Your task to perform on an android device: toggle priority inbox in the gmail app Image 0: 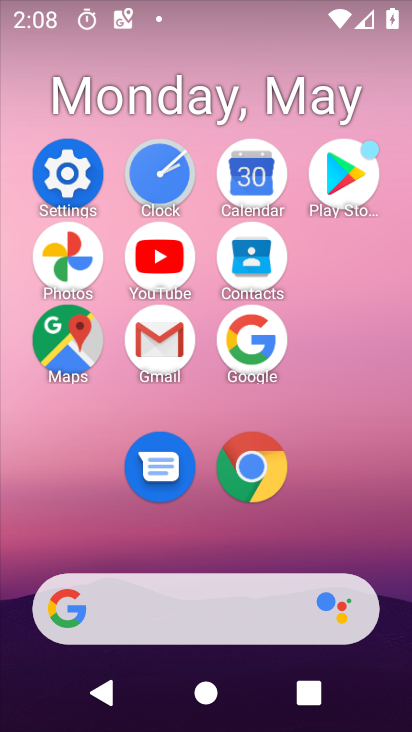
Step 0: click (151, 337)
Your task to perform on an android device: toggle priority inbox in the gmail app Image 1: 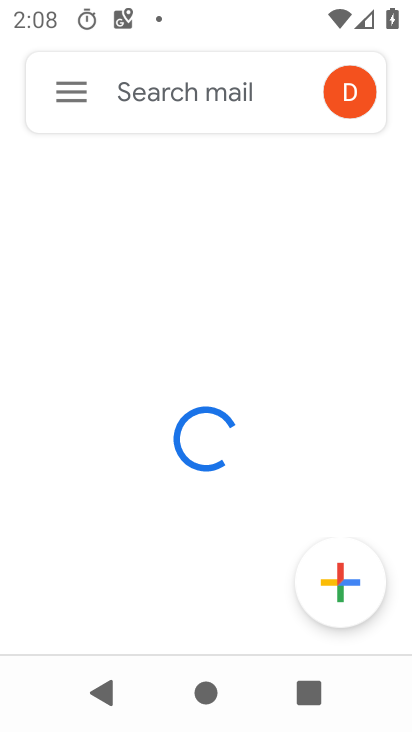
Step 1: click (58, 100)
Your task to perform on an android device: toggle priority inbox in the gmail app Image 2: 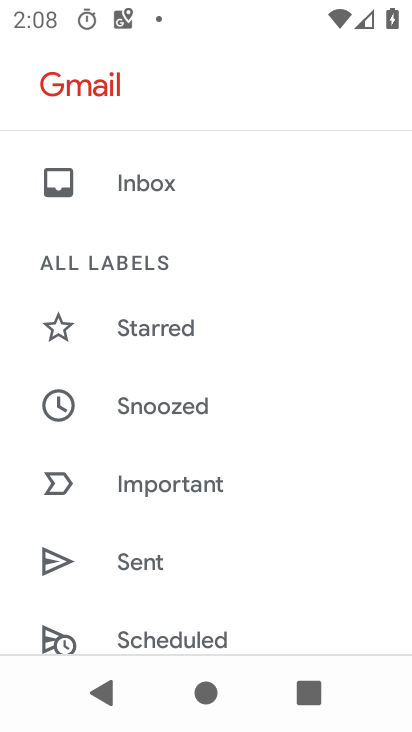
Step 2: drag from (169, 498) to (181, 152)
Your task to perform on an android device: toggle priority inbox in the gmail app Image 3: 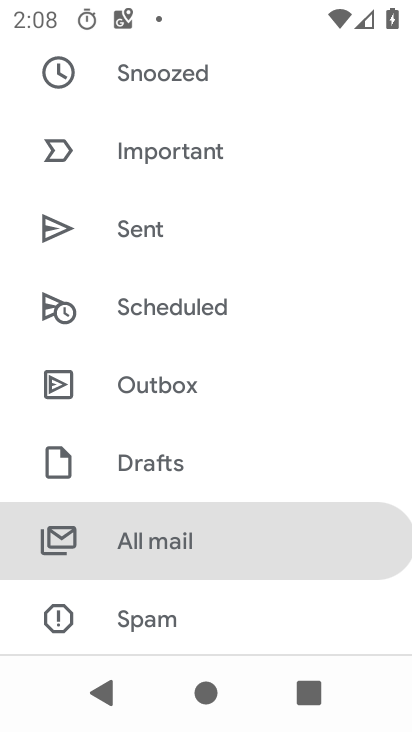
Step 3: drag from (174, 529) to (195, 188)
Your task to perform on an android device: toggle priority inbox in the gmail app Image 4: 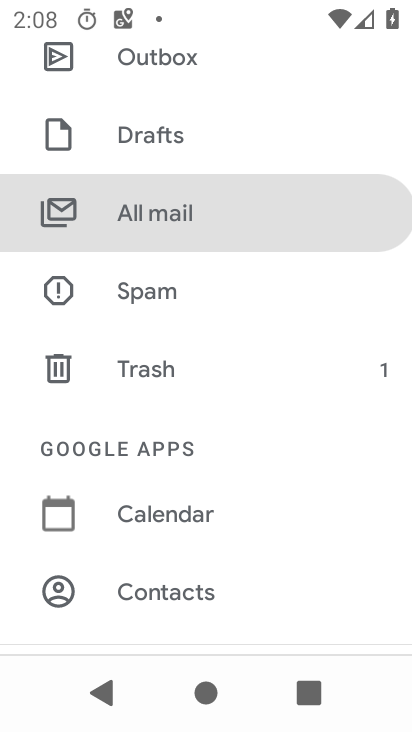
Step 4: drag from (195, 494) to (193, 195)
Your task to perform on an android device: toggle priority inbox in the gmail app Image 5: 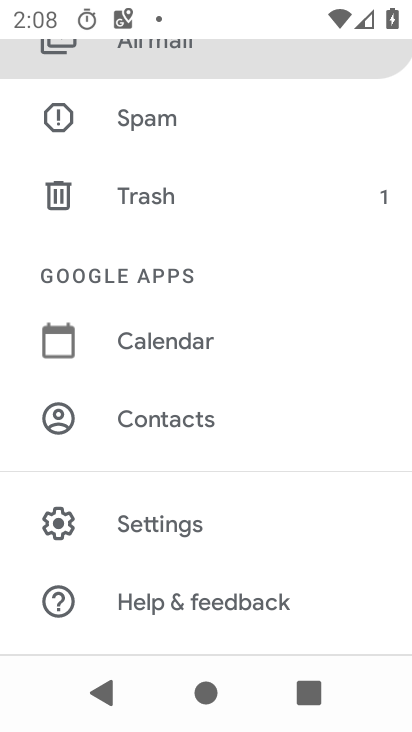
Step 5: click (193, 539)
Your task to perform on an android device: toggle priority inbox in the gmail app Image 6: 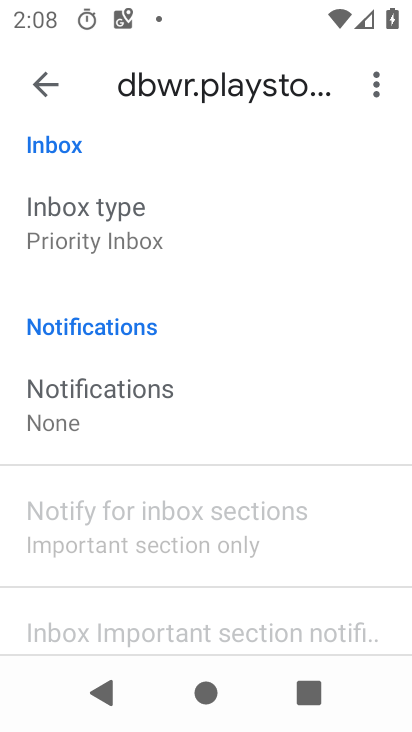
Step 6: drag from (209, 227) to (228, 464)
Your task to perform on an android device: toggle priority inbox in the gmail app Image 7: 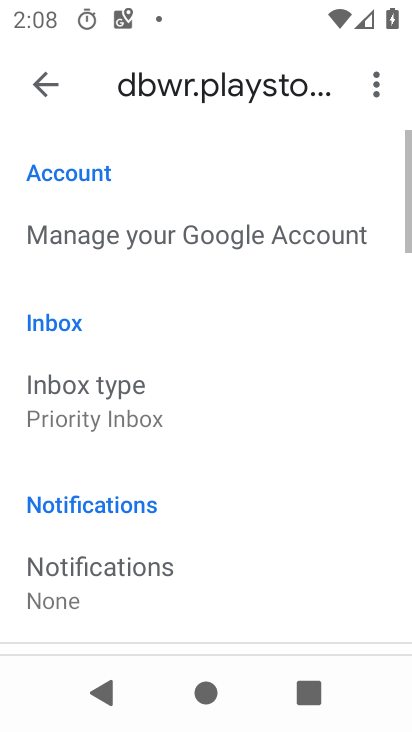
Step 7: drag from (260, 288) to (278, 507)
Your task to perform on an android device: toggle priority inbox in the gmail app Image 8: 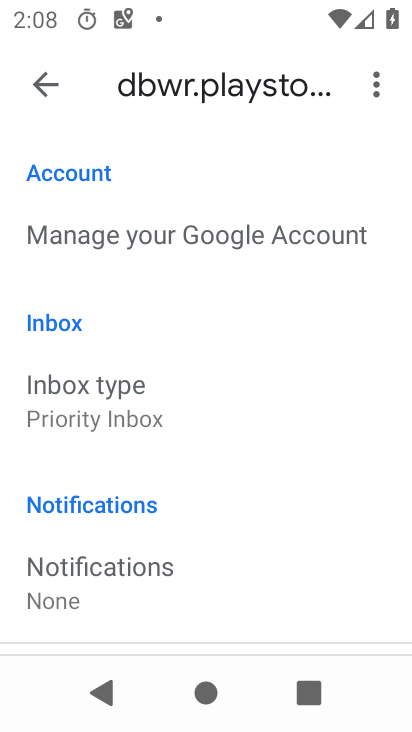
Step 8: click (175, 417)
Your task to perform on an android device: toggle priority inbox in the gmail app Image 9: 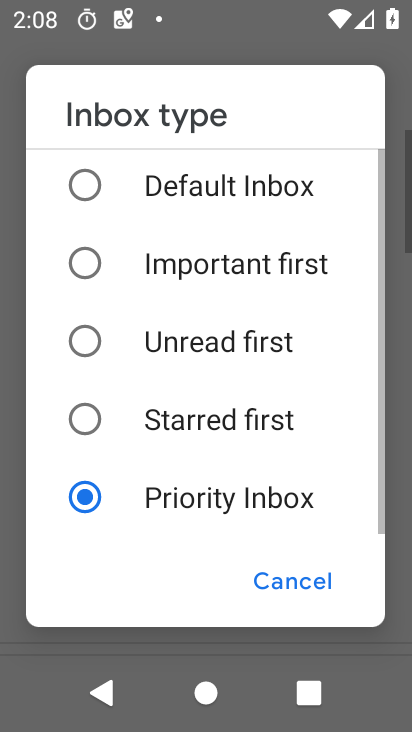
Step 9: click (194, 174)
Your task to perform on an android device: toggle priority inbox in the gmail app Image 10: 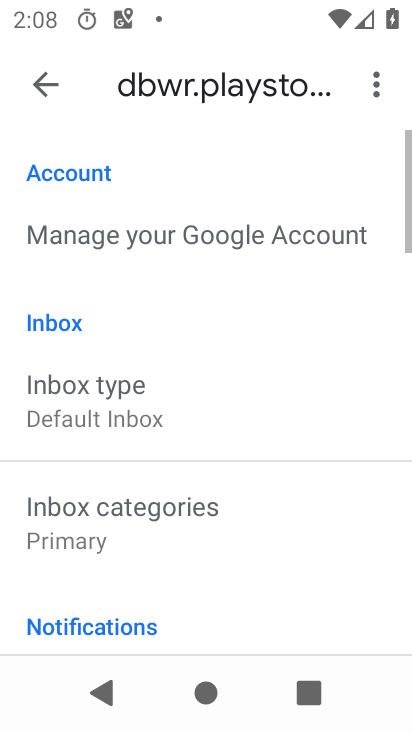
Step 10: task complete